Your task to perform on an android device: Open wifi settings Image 0: 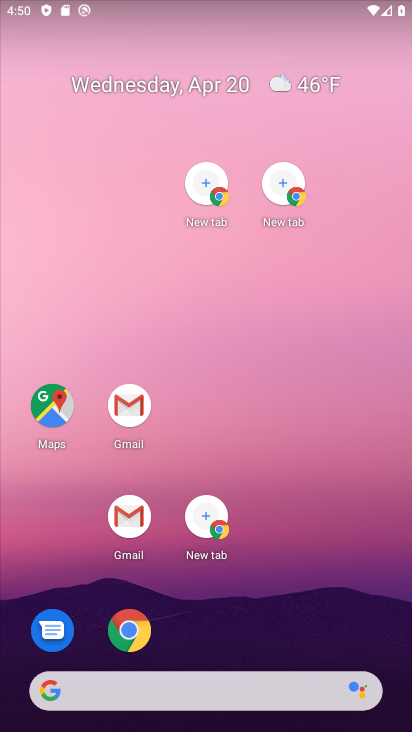
Step 0: drag from (386, 696) to (134, 74)
Your task to perform on an android device: Open wifi settings Image 1: 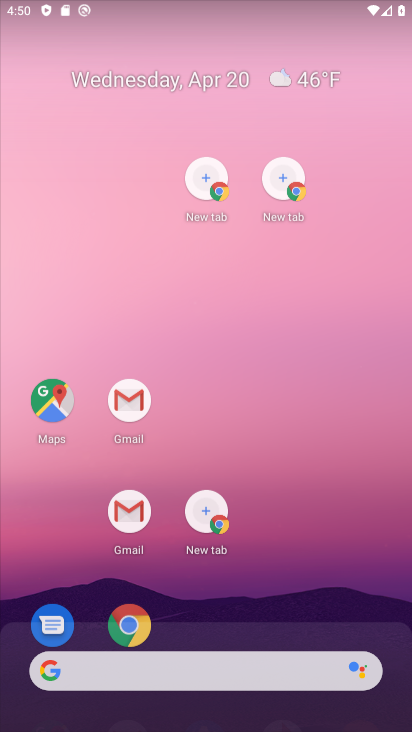
Step 1: drag from (255, 397) to (133, 58)
Your task to perform on an android device: Open wifi settings Image 2: 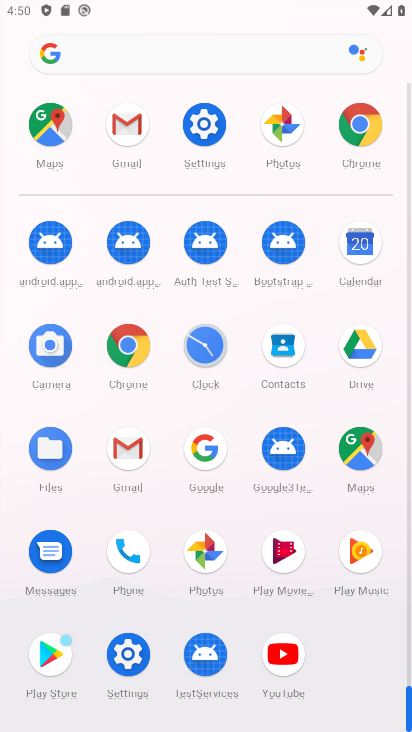
Step 2: click (206, 123)
Your task to perform on an android device: Open wifi settings Image 3: 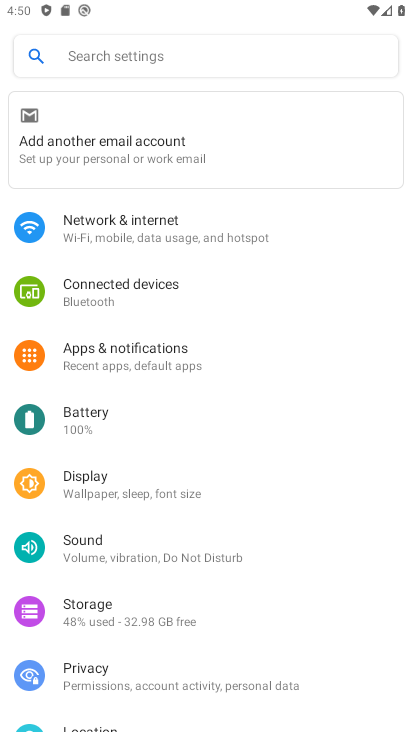
Step 3: click (129, 224)
Your task to perform on an android device: Open wifi settings Image 4: 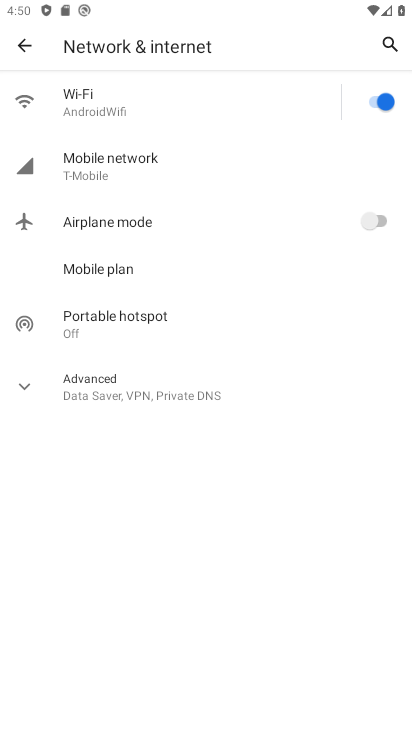
Step 4: task complete